Your task to perform on an android device: toggle translation in the chrome app Image 0: 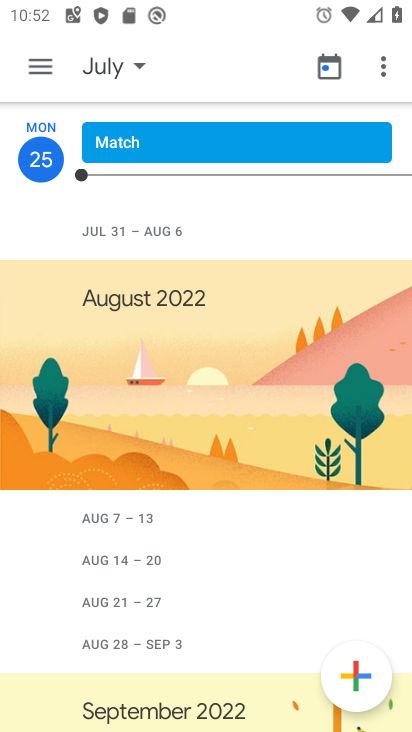
Step 0: press home button
Your task to perform on an android device: toggle translation in the chrome app Image 1: 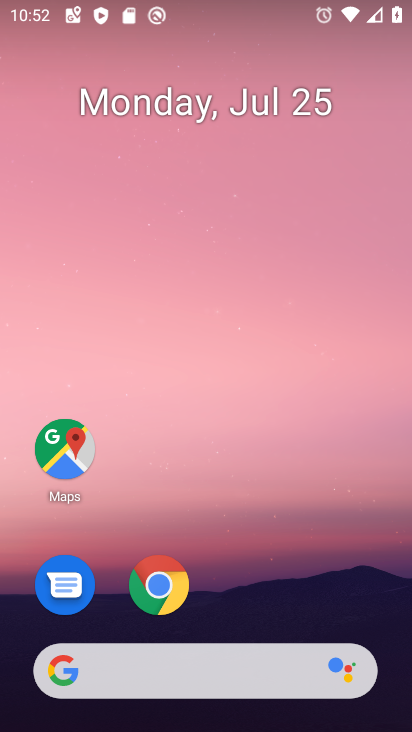
Step 1: drag from (211, 641) to (144, 0)
Your task to perform on an android device: toggle translation in the chrome app Image 2: 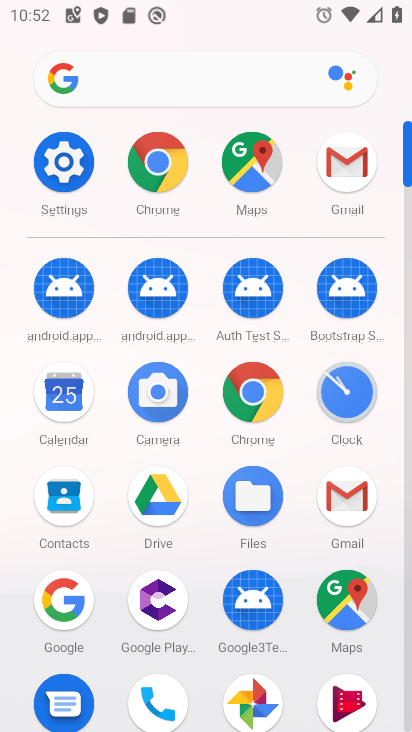
Step 2: click (153, 158)
Your task to perform on an android device: toggle translation in the chrome app Image 3: 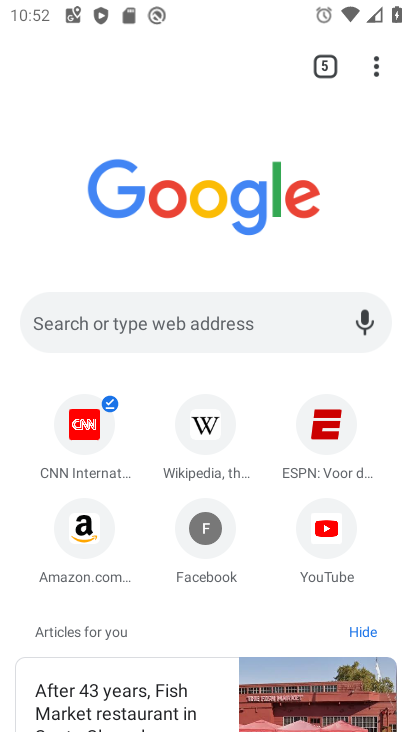
Step 3: drag from (372, 65) to (160, 632)
Your task to perform on an android device: toggle translation in the chrome app Image 4: 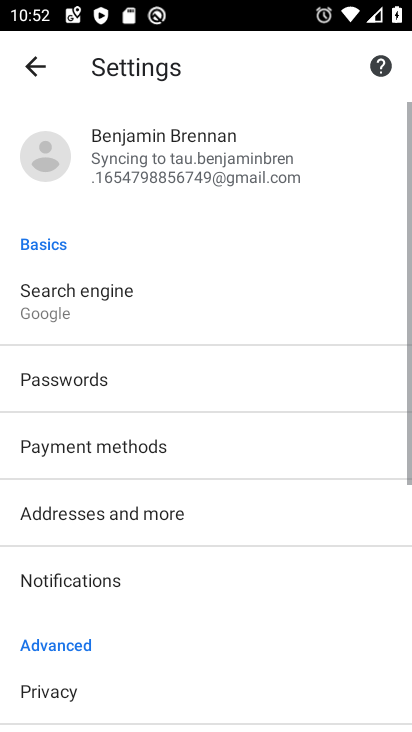
Step 4: drag from (76, 613) to (82, 98)
Your task to perform on an android device: toggle translation in the chrome app Image 5: 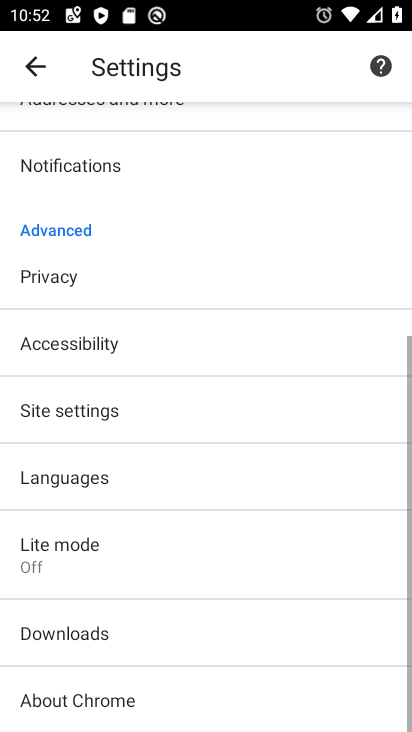
Step 5: click (107, 475)
Your task to perform on an android device: toggle translation in the chrome app Image 6: 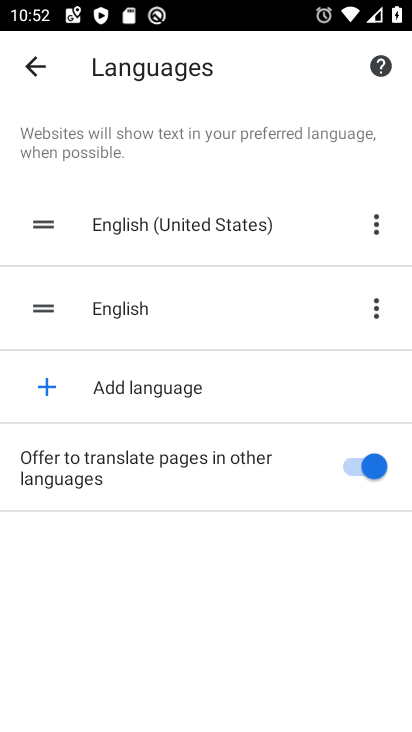
Step 6: click (363, 461)
Your task to perform on an android device: toggle translation in the chrome app Image 7: 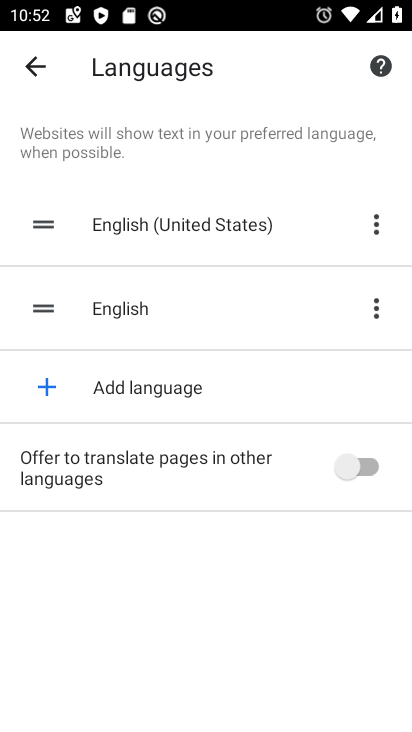
Step 7: task complete